Your task to perform on an android device: Find coffee shops on Maps Image 0: 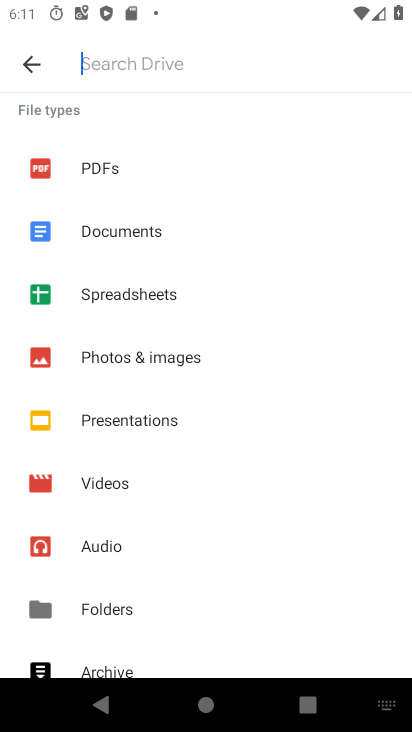
Step 0: press home button
Your task to perform on an android device: Find coffee shops on Maps Image 1: 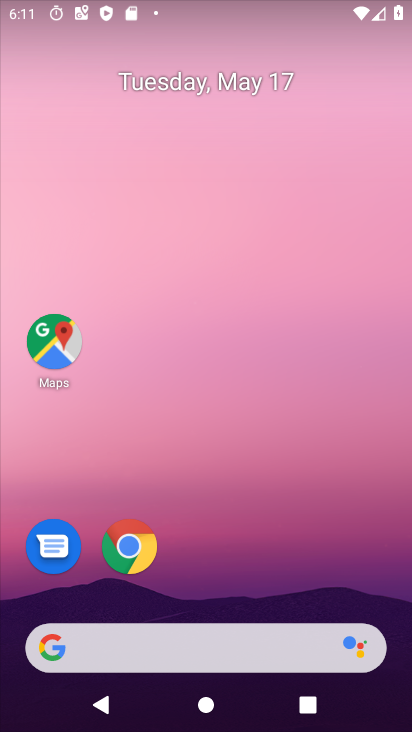
Step 1: click (53, 347)
Your task to perform on an android device: Find coffee shops on Maps Image 2: 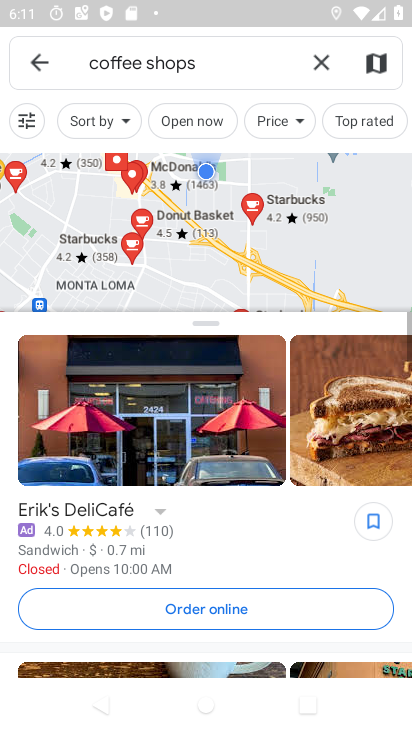
Step 2: task complete